Your task to perform on an android device: check the backup settings in the google photos Image 0: 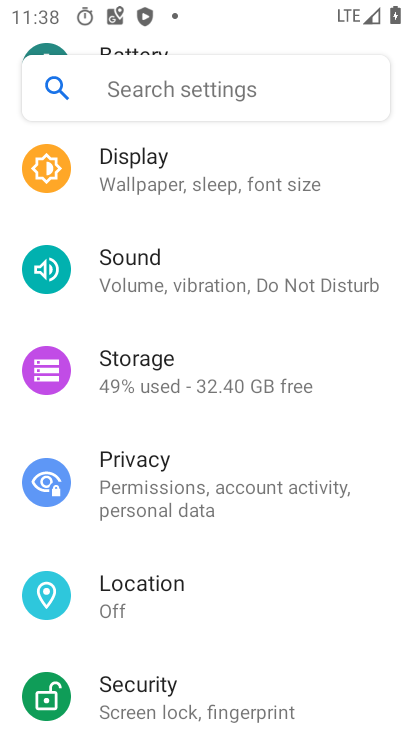
Step 0: press home button
Your task to perform on an android device: check the backup settings in the google photos Image 1: 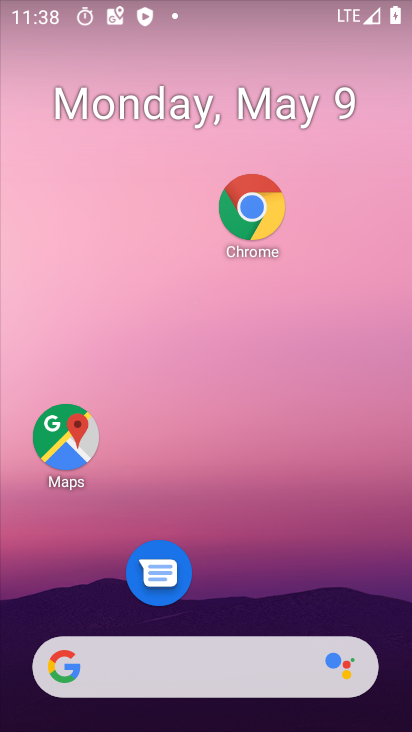
Step 1: drag from (221, 629) to (249, 212)
Your task to perform on an android device: check the backup settings in the google photos Image 2: 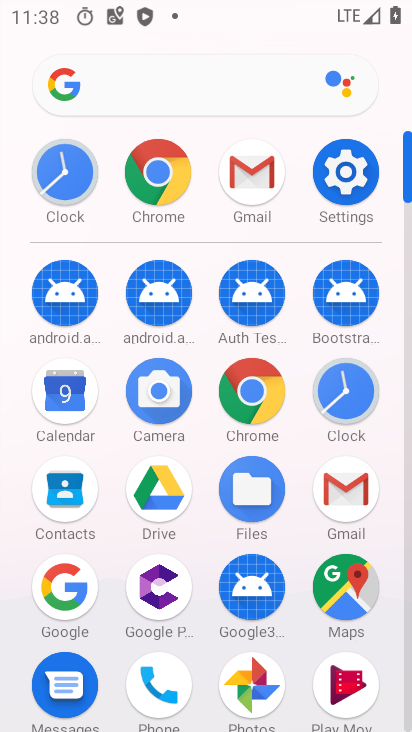
Step 2: click (246, 672)
Your task to perform on an android device: check the backup settings in the google photos Image 3: 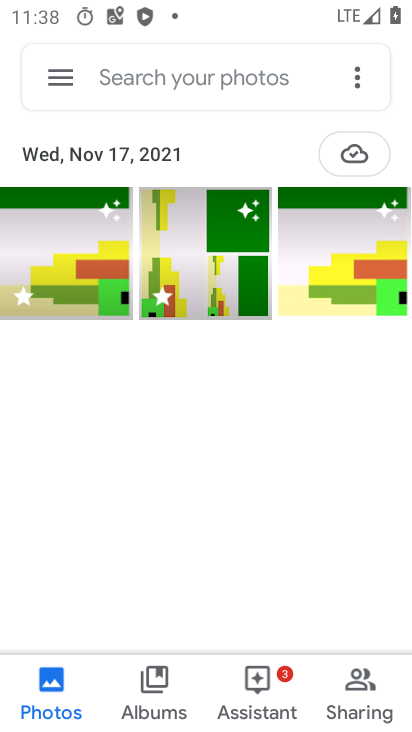
Step 3: click (62, 92)
Your task to perform on an android device: check the backup settings in the google photos Image 4: 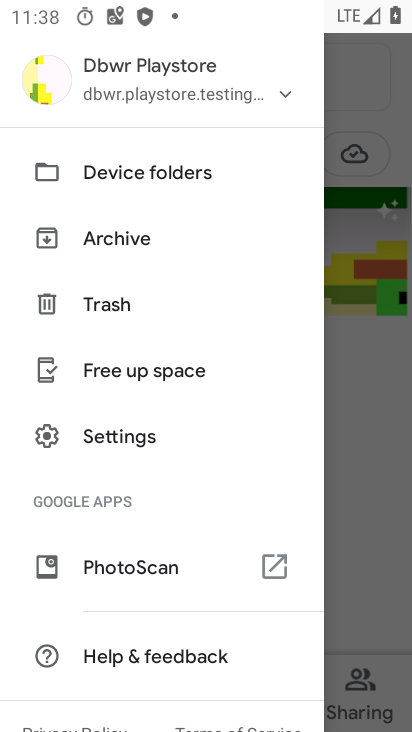
Step 4: drag from (186, 494) to (223, 183)
Your task to perform on an android device: check the backup settings in the google photos Image 5: 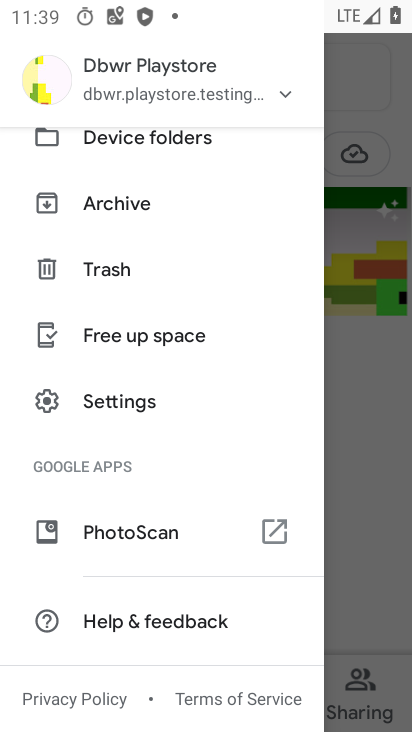
Step 5: click (157, 406)
Your task to perform on an android device: check the backup settings in the google photos Image 6: 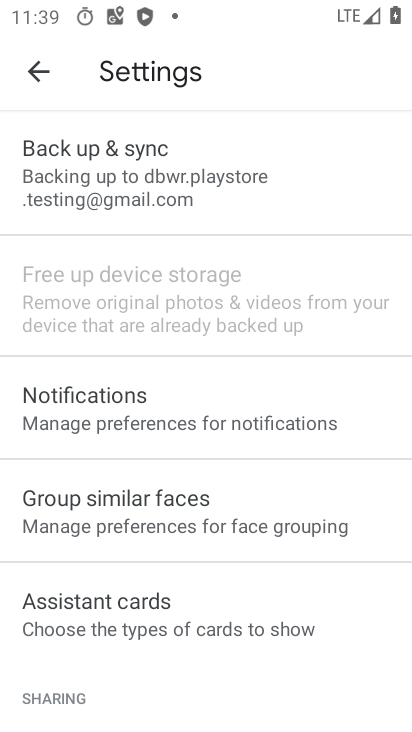
Step 6: drag from (244, 575) to (256, 231)
Your task to perform on an android device: check the backup settings in the google photos Image 7: 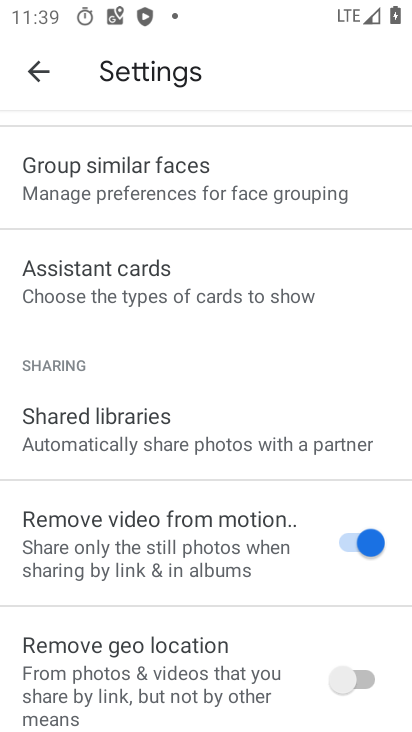
Step 7: drag from (251, 215) to (164, 723)
Your task to perform on an android device: check the backup settings in the google photos Image 8: 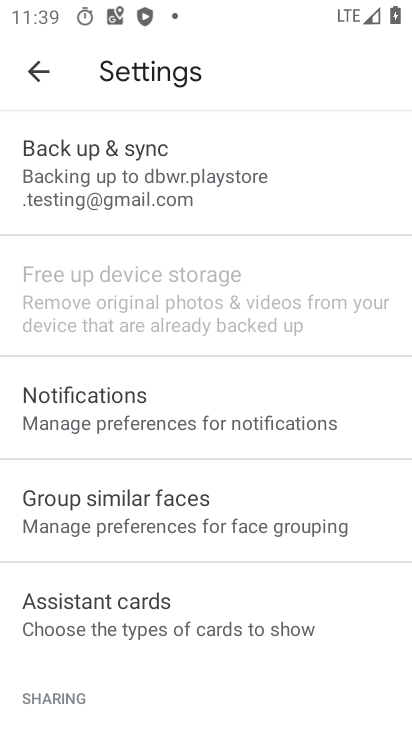
Step 8: click (202, 146)
Your task to perform on an android device: check the backup settings in the google photos Image 9: 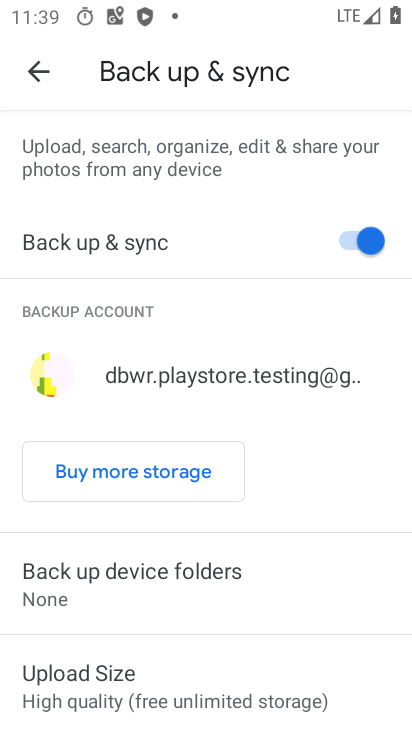
Step 9: task complete